Your task to perform on an android device: open a bookmark in the chrome app Image 0: 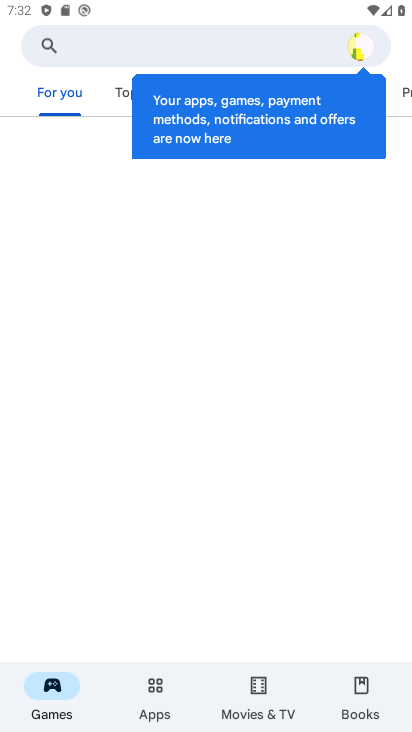
Step 0: press home button
Your task to perform on an android device: open a bookmark in the chrome app Image 1: 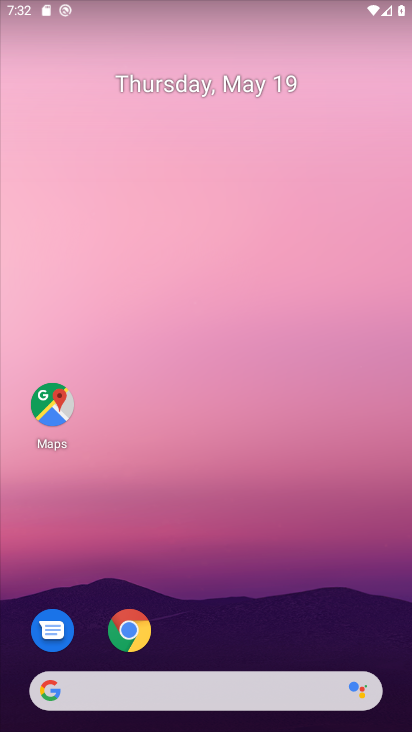
Step 1: click (128, 623)
Your task to perform on an android device: open a bookmark in the chrome app Image 2: 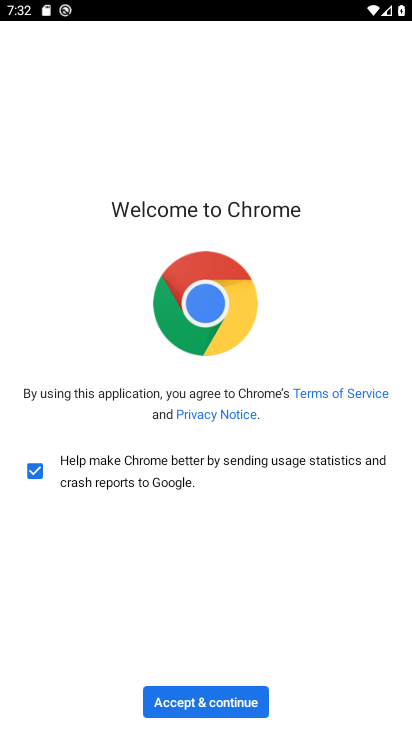
Step 2: click (185, 708)
Your task to perform on an android device: open a bookmark in the chrome app Image 3: 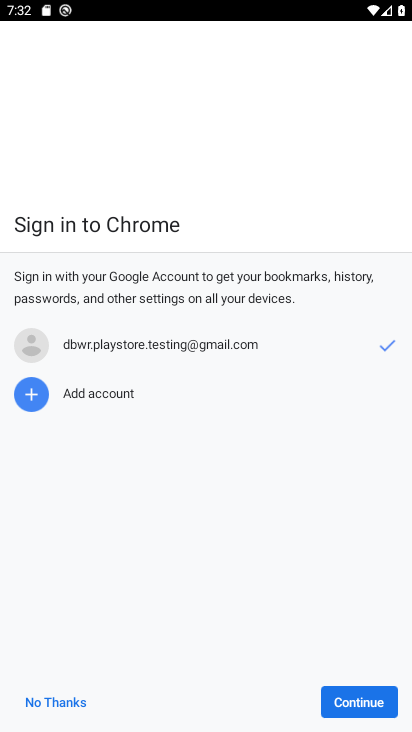
Step 3: click (56, 695)
Your task to perform on an android device: open a bookmark in the chrome app Image 4: 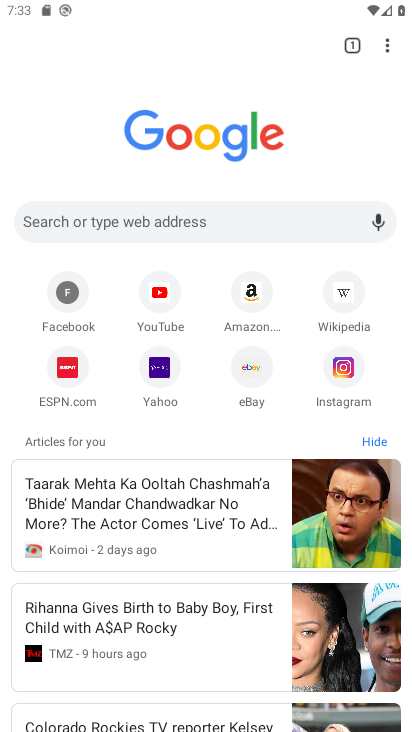
Step 4: click (383, 38)
Your task to perform on an android device: open a bookmark in the chrome app Image 5: 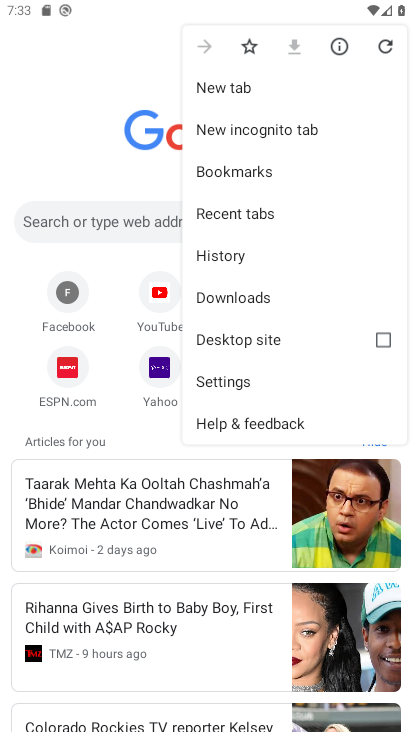
Step 5: click (263, 173)
Your task to perform on an android device: open a bookmark in the chrome app Image 6: 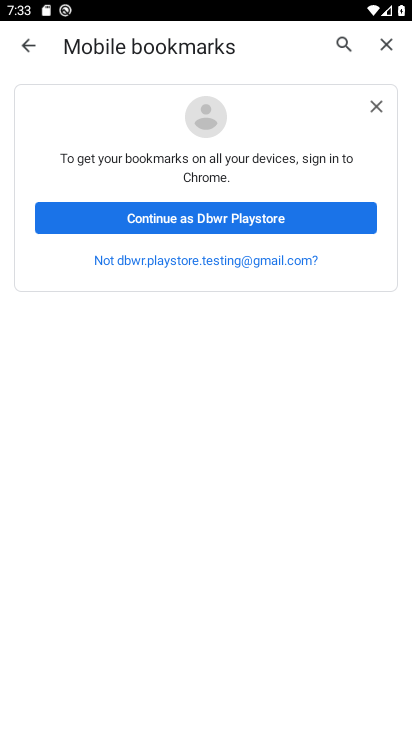
Step 6: task complete